Your task to perform on an android device: open app "Yahoo Mail" Image 0: 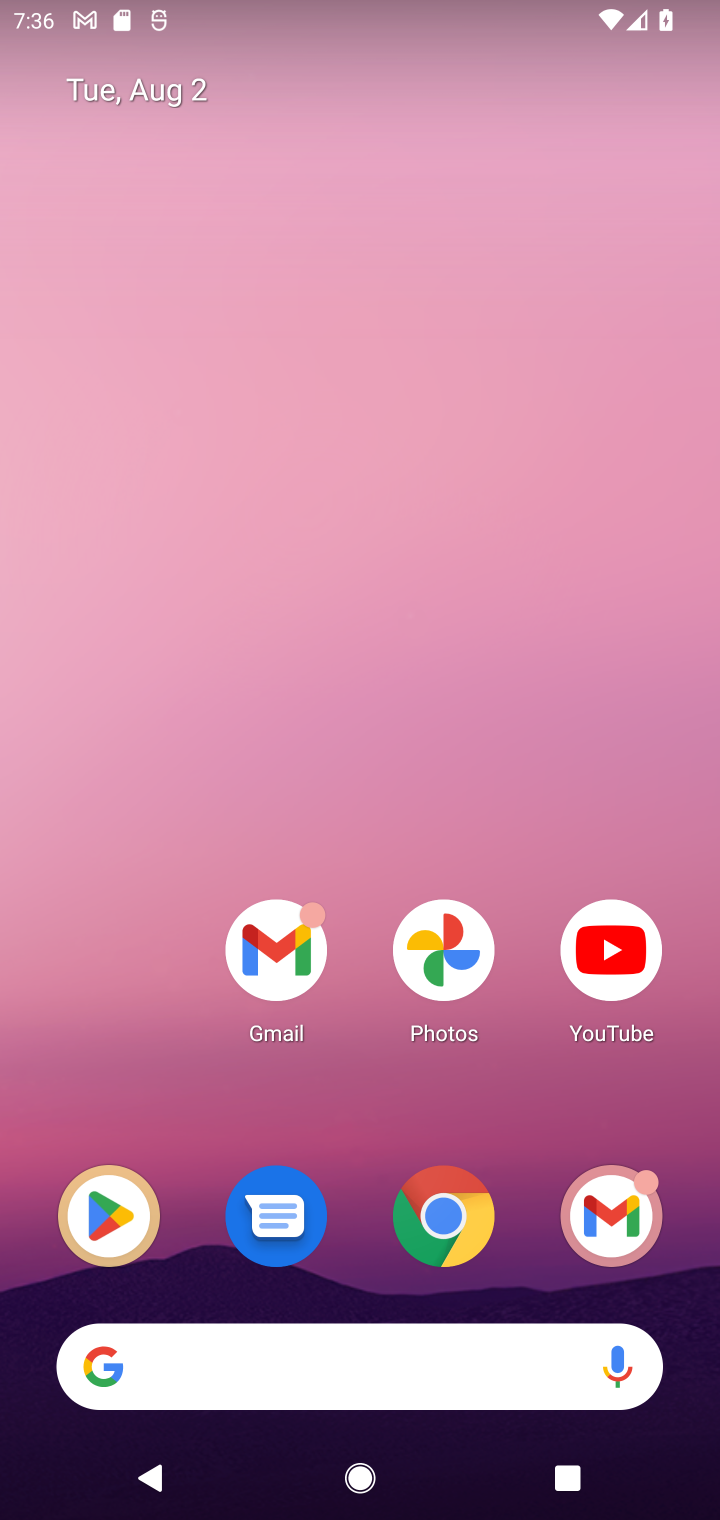
Step 0: click (96, 1210)
Your task to perform on an android device: open app "Yahoo Mail" Image 1: 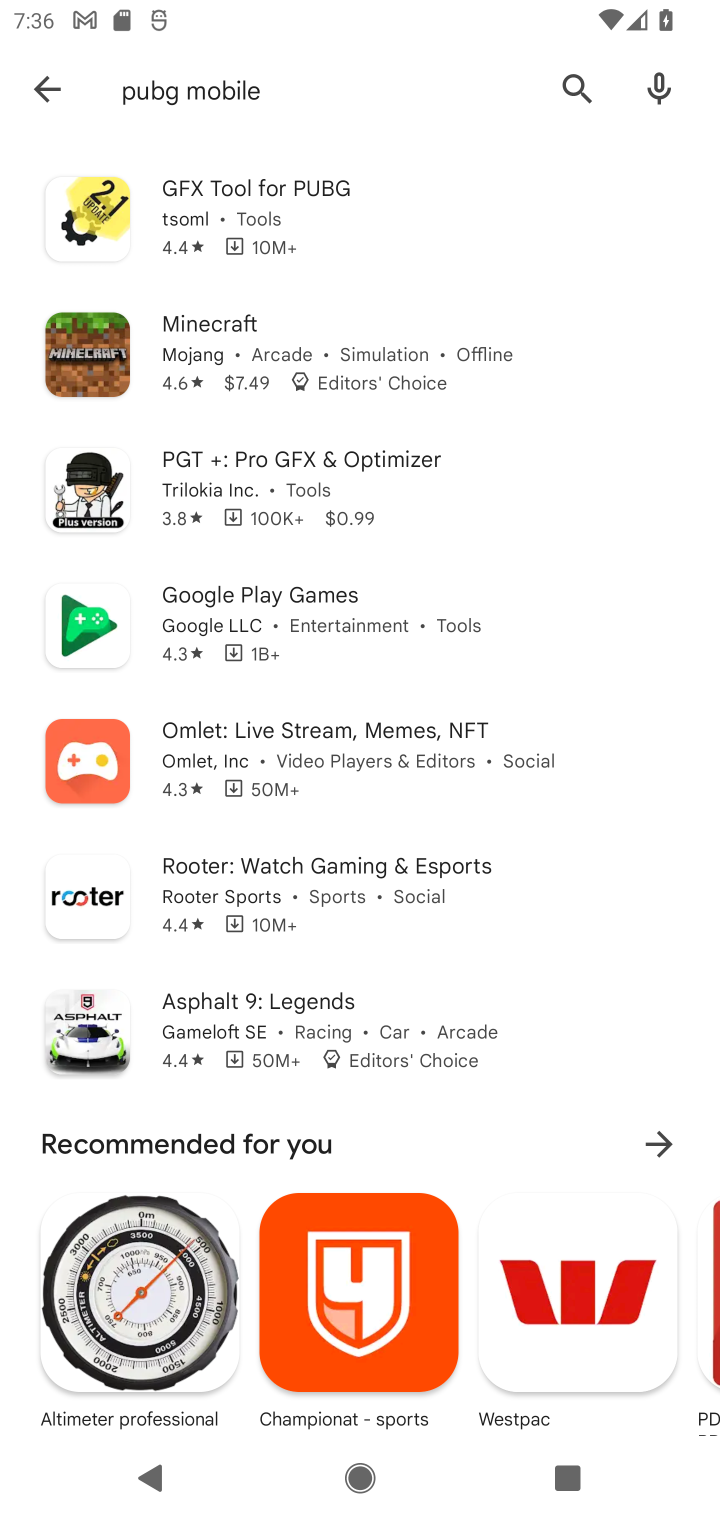
Step 1: click (109, 1210)
Your task to perform on an android device: open app "Yahoo Mail" Image 2: 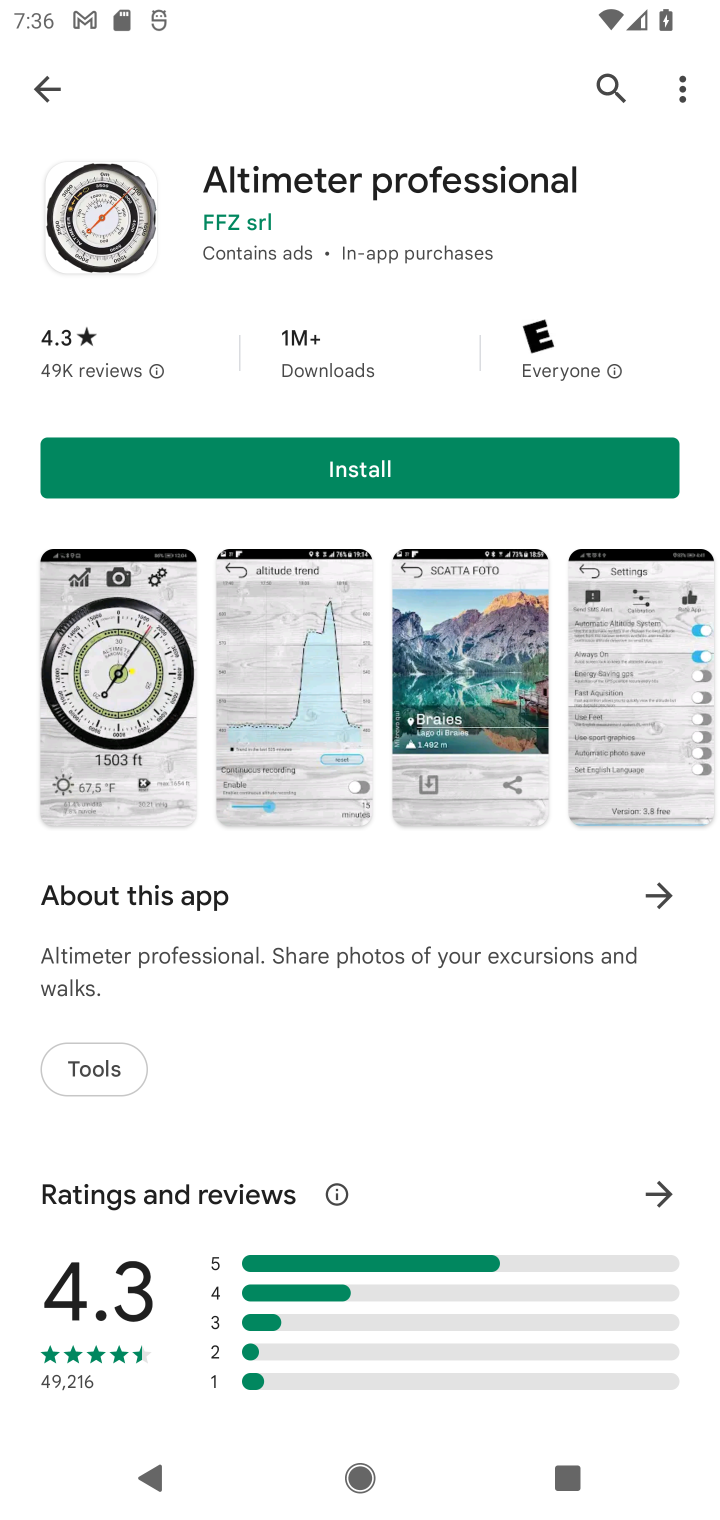
Step 2: click (50, 76)
Your task to perform on an android device: open app "Yahoo Mail" Image 3: 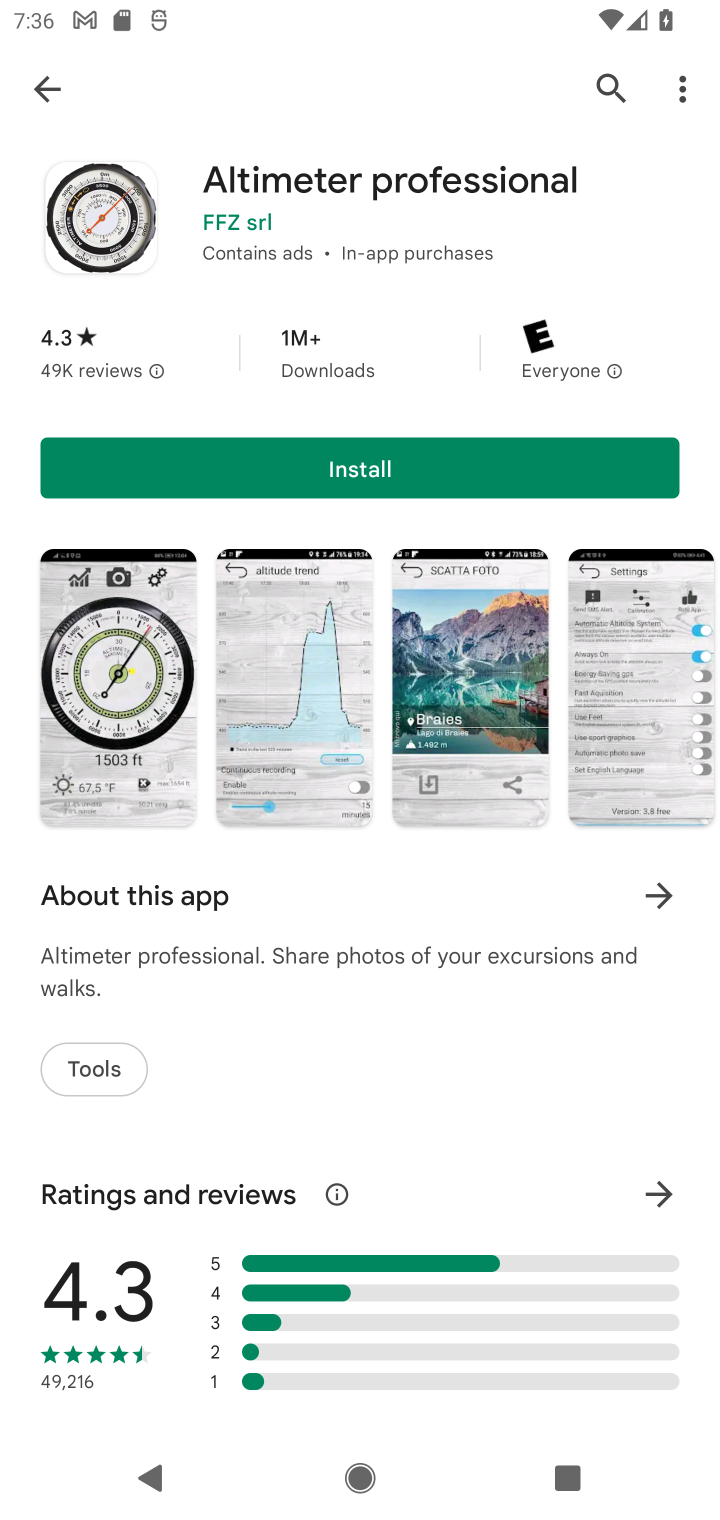
Step 3: click (601, 86)
Your task to perform on an android device: open app "Yahoo Mail" Image 4: 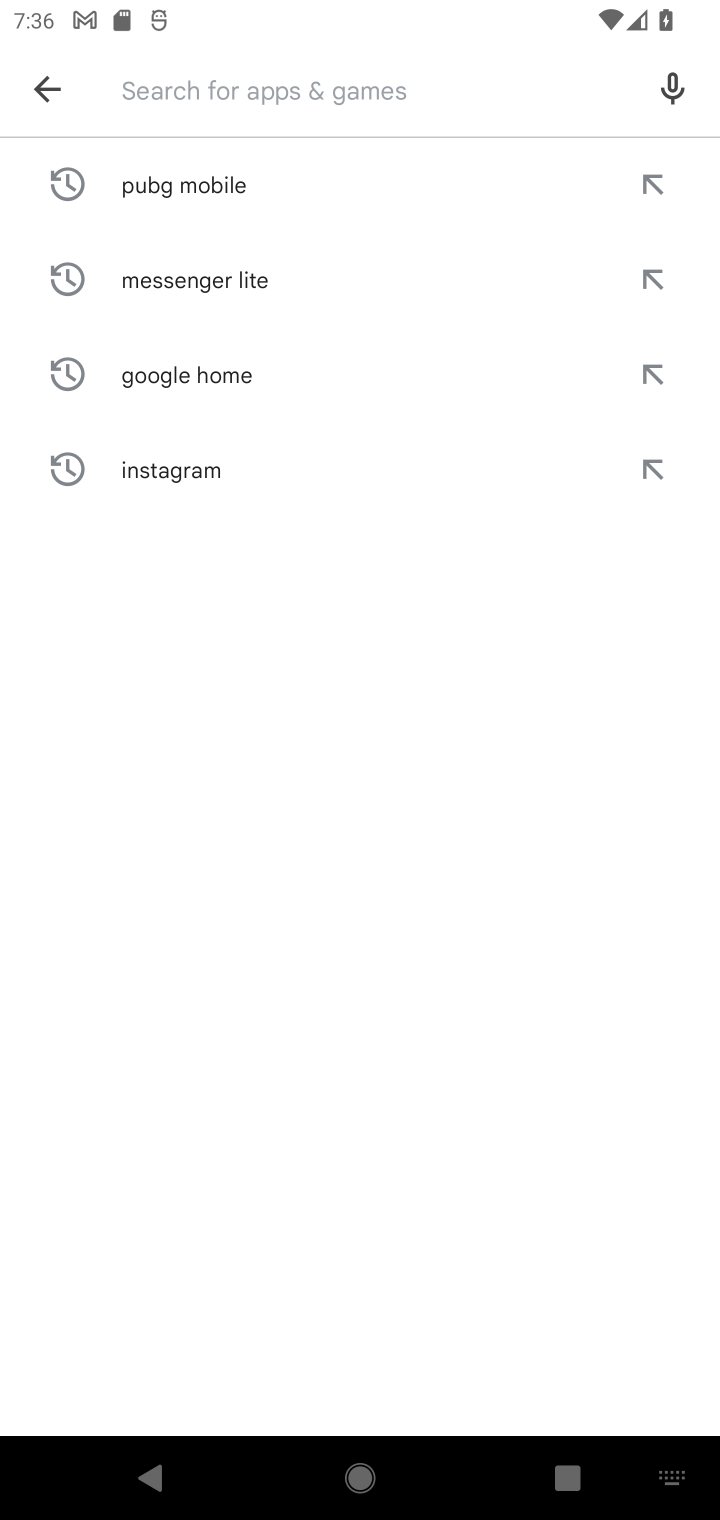
Step 4: type "Yahoo Mail"
Your task to perform on an android device: open app "Yahoo Mail" Image 5: 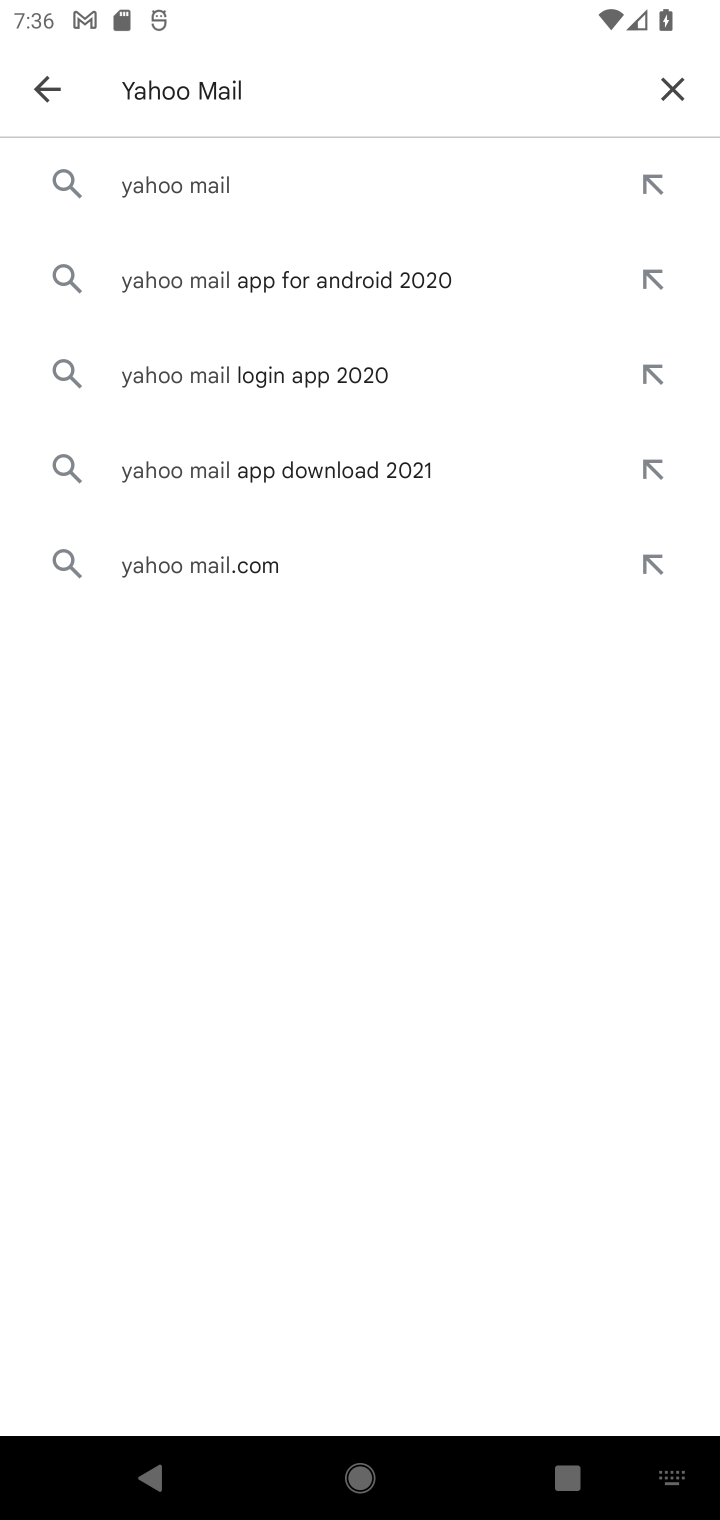
Step 5: click (207, 181)
Your task to perform on an android device: open app "Yahoo Mail" Image 6: 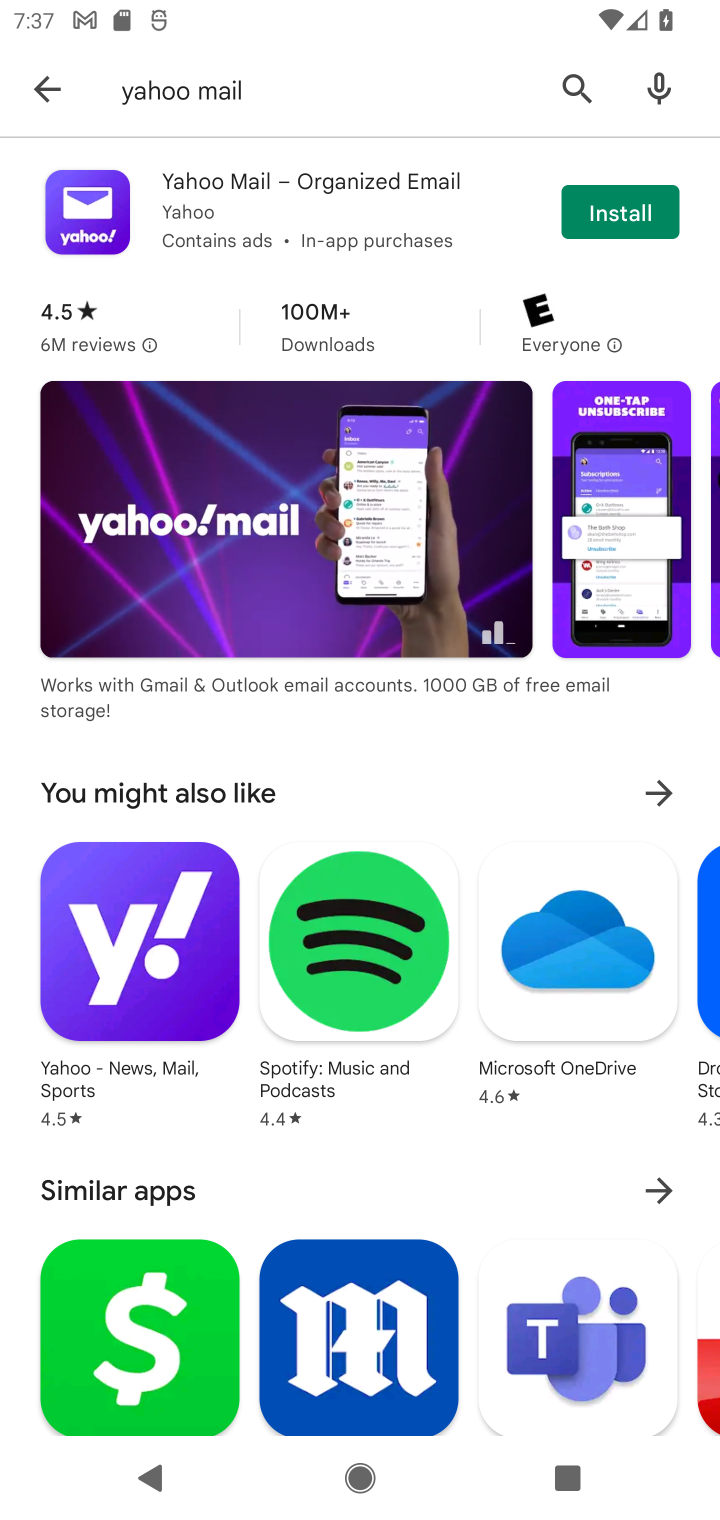
Step 6: task complete